Your task to perform on an android device: Open internet settings Image 0: 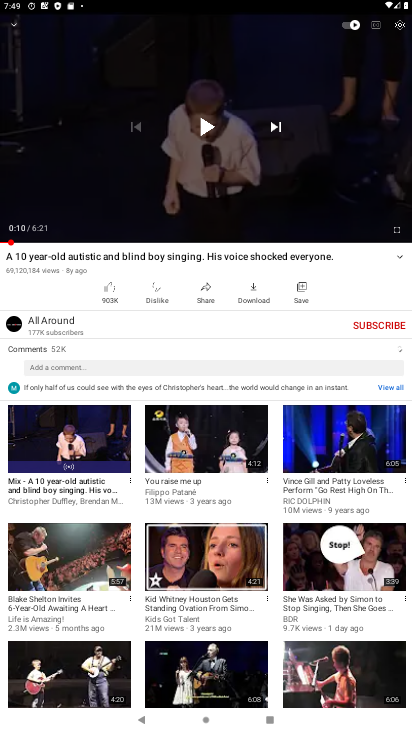
Step 0: press home button
Your task to perform on an android device: Open internet settings Image 1: 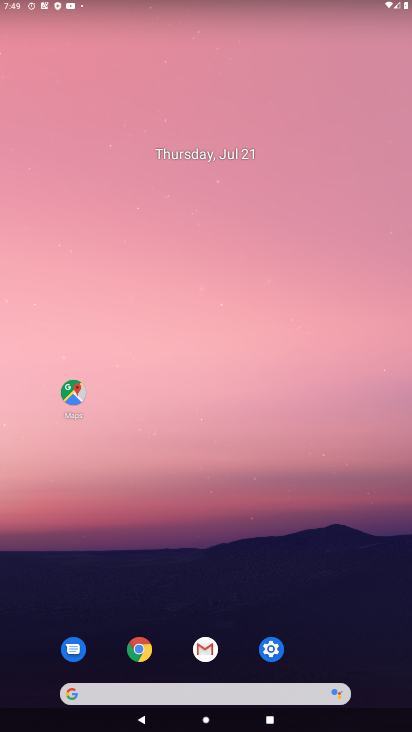
Step 1: click (271, 648)
Your task to perform on an android device: Open internet settings Image 2: 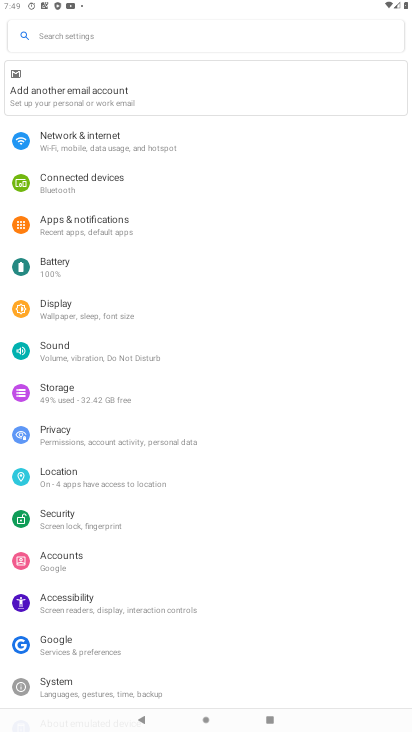
Step 2: click (101, 148)
Your task to perform on an android device: Open internet settings Image 3: 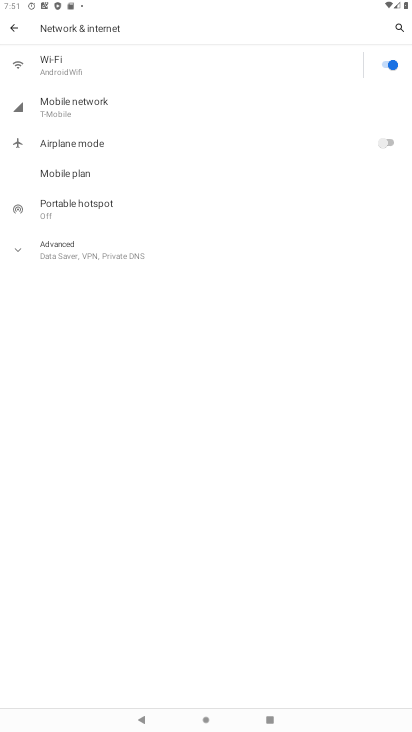
Step 3: task complete